Your task to perform on an android device: Play the last video I watched on Youtube Image 0: 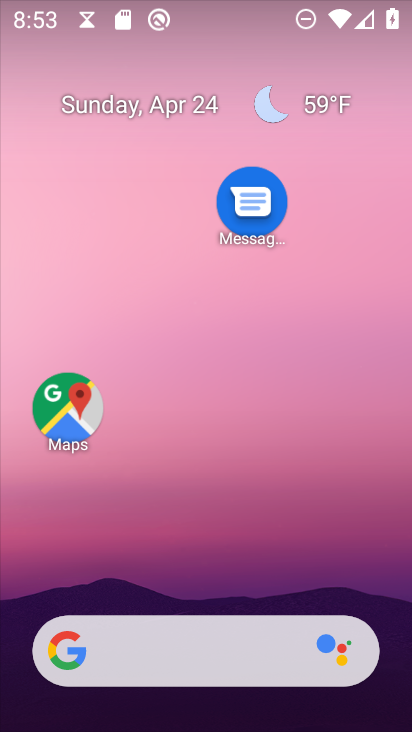
Step 0: drag from (242, 611) to (357, 0)
Your task to perform on an android device: Play the last video I watched on Youtube Image 1: 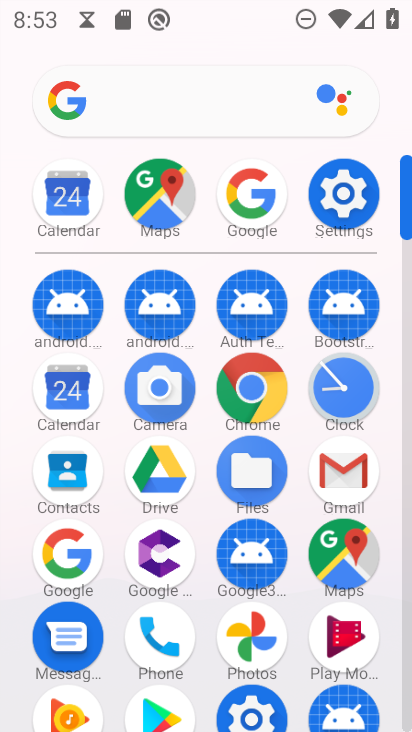
Step 1: drag from (199, 629) to (389, 76)
Your task to perform on an android device: Play the last video I watched on Youtube Image 2: 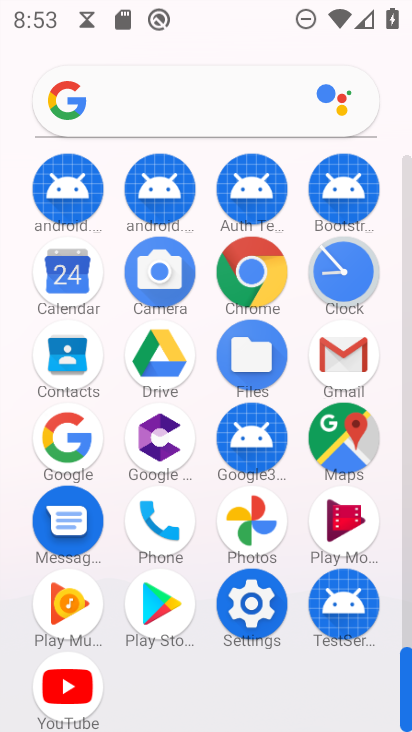
Step 2: click (66, 685)
Your task to perform on an android device: Play the last video I watched on Youtube Image 3: 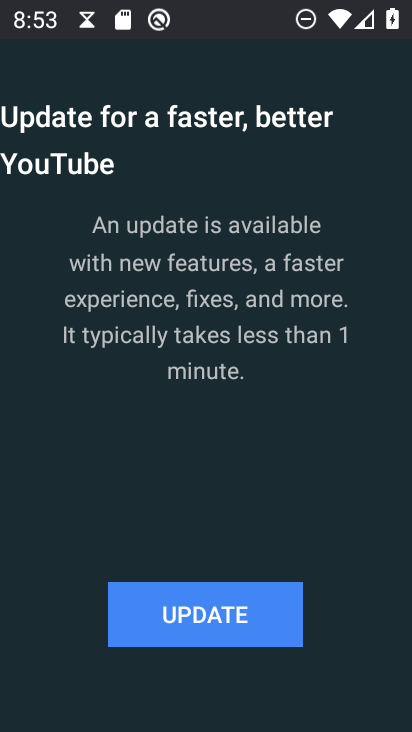
Step 3: click (202, 616)
Your task to perform on an android device: Play the last video I watched on Youtube Image 4: 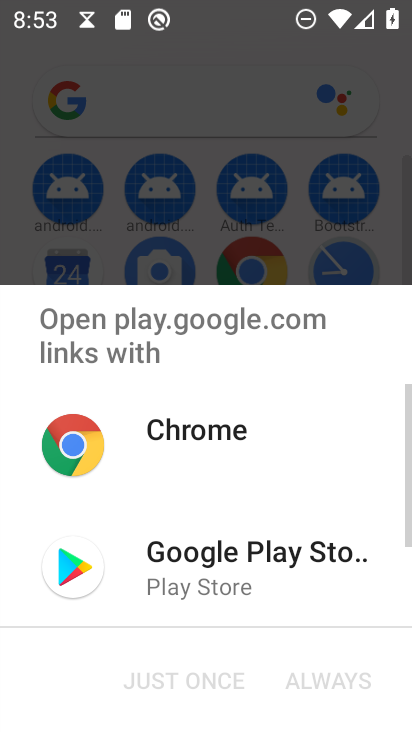
Step 4: click (153, 569)
Your task to perform on an android device: Play the last video I watched on Youtube Image 5: 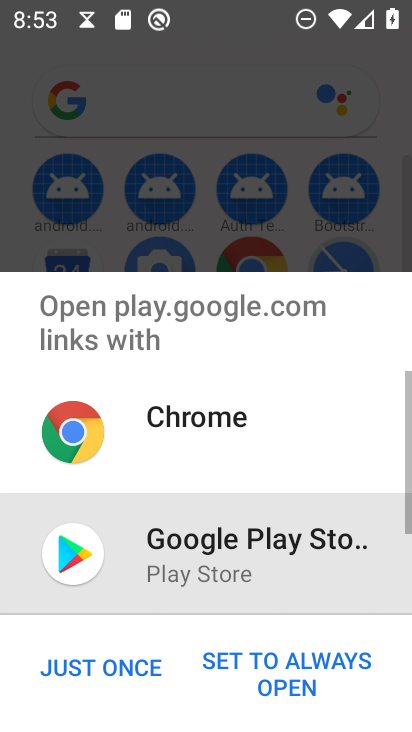
Step 5: click (151, 672)
Your task to perform on an android device: Play the last video I watched on Youtube Image 6: 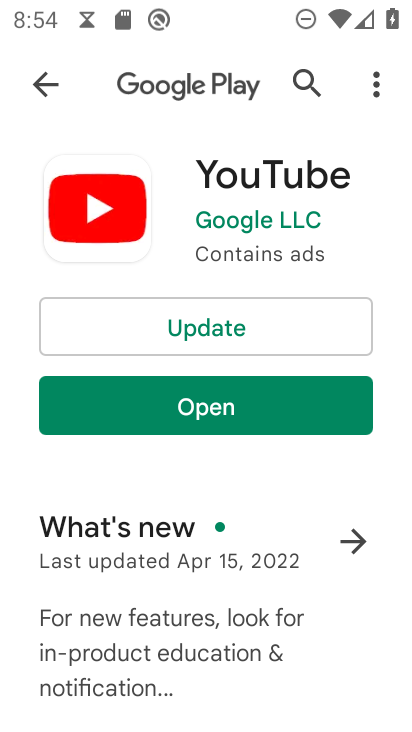
Step 6: click (240, 334)
Your task to perform on an android device: Play the last video I watched on Youtube Image 7: 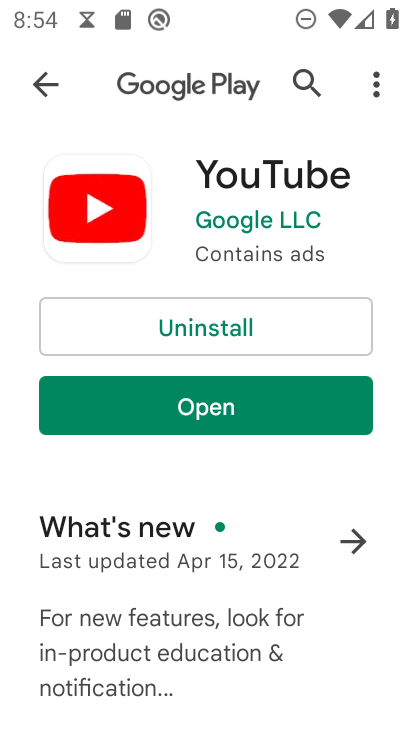
Step 7: click (217, 410)
Your task to perform on an android device: Play the last video I watched on Youtube Image 8: 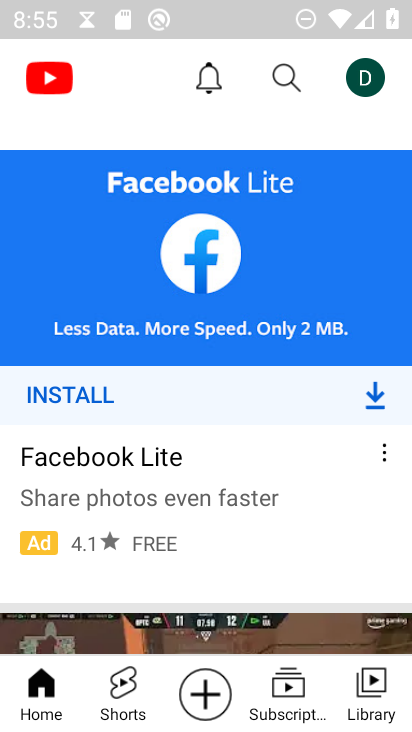
Step 8: click (371, 705)
Your task to perform on an android device: Play the last video I watched on Youtube Image 9: 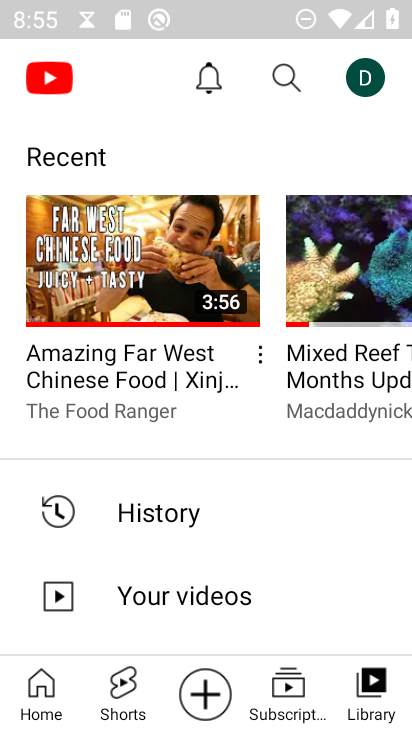
Step 9: click (160, 251)
Your task to perform on an android device: Play the last video I watched on Youtube Image 10: 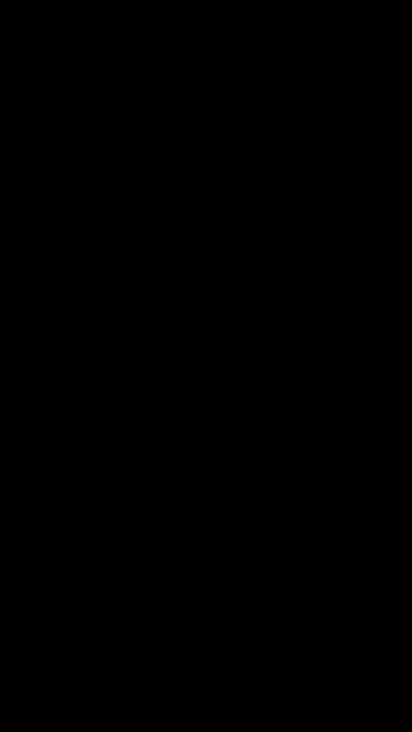
Step 10: task complete